Your task to perform on an android device: star an email in the gmail app Image 0: 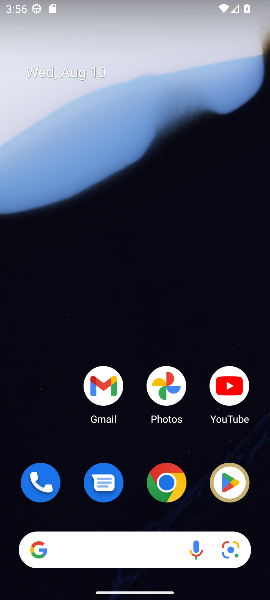
Step 0: click (97, 384)
Your task to perform on an android device: star an email in the gmail app Image 1: 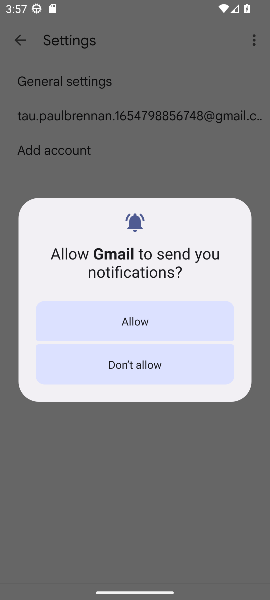
Step 1: click (151, 324)
Your task to perform on an android device: star an email in the gmail app Image 2: 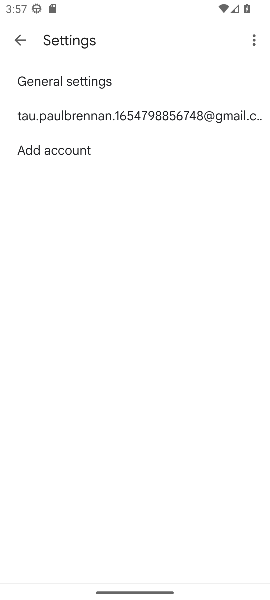
Step 2: click (23, 40)
Your task to perform on an android device: star an email in the gmail app Image 3: 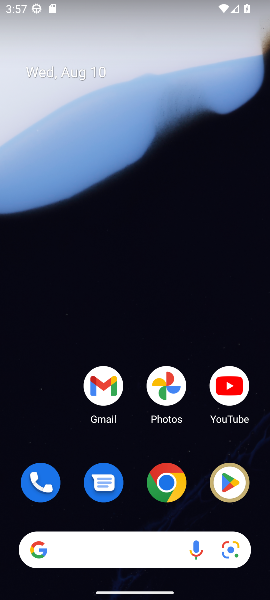
Step 3: click (105, 383)
Your task to perform on an android device: star an email in the gmail app Image 4: 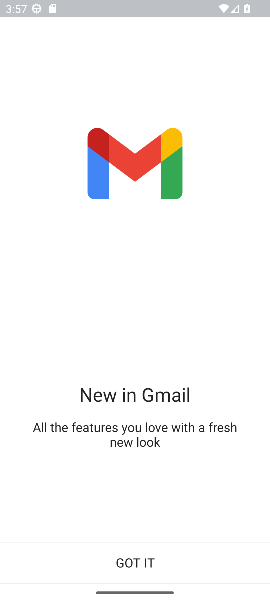
Step 4: click (140, 556)
Your task to perform on an android device: star an email in the gmail app Image 5: 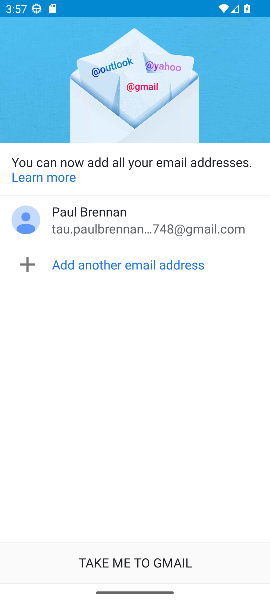
Step 5: click (140, 556)
Your task to perform on an android device: star an email in the gmail app Image 6: 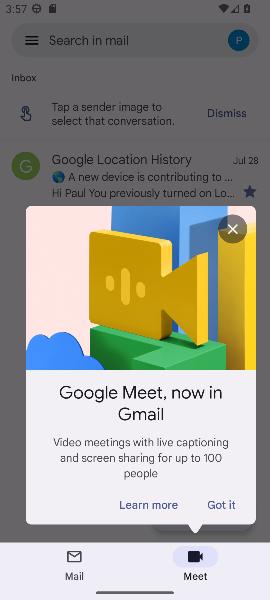
Step 6: click (238, 232)
Your task to perform on an android device: star an email in the gmail app Image 7: 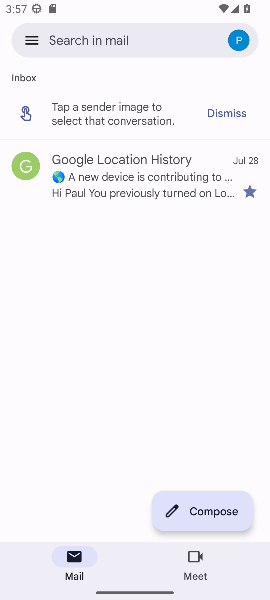
Step 7: click (39, 40)
Your task to perform on an android device: star an email in the gmail app Image 8: 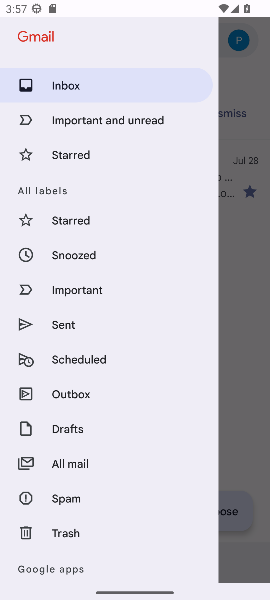
Step 8: click (81, 458)
Your task to perform on an android device: star an email in the gmail app Image 9: 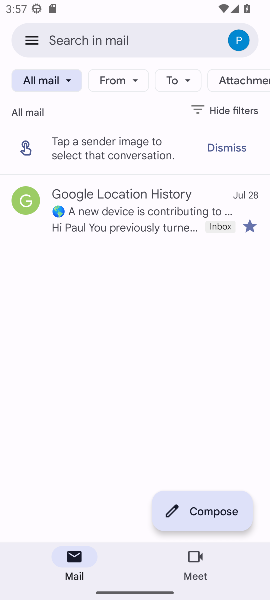
Step 9: click (251, 226)
Your task to perform on an android device: star an email in the gmail app Image 10: 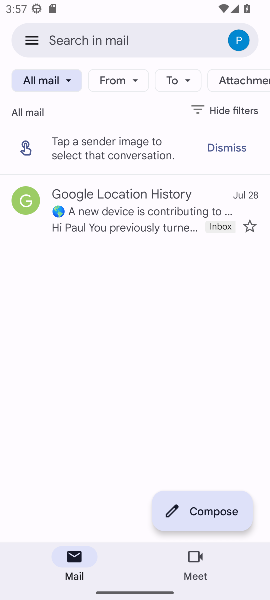
Step 10: click (251, 225)
Your task to perform on an android device: star an email in the gmail app Image 11: 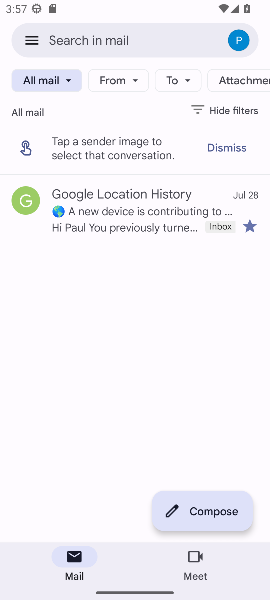
Step 11: task complete